Your task to perform on an android device: Go to accessibility settings Image 0: 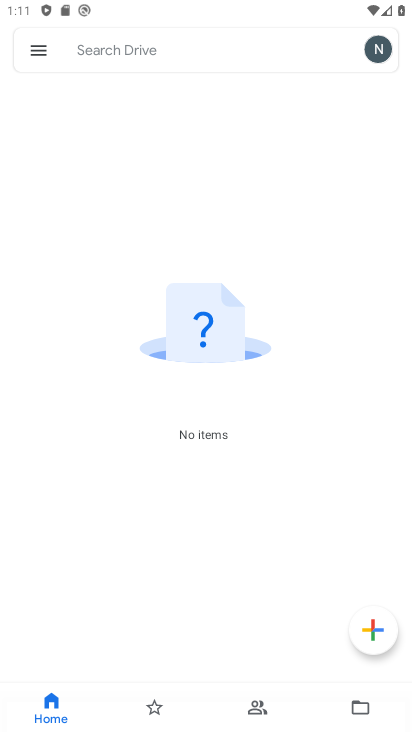
Step 0: press home button
Your task to perform on an android device: Go to accessibility settings Image 1: 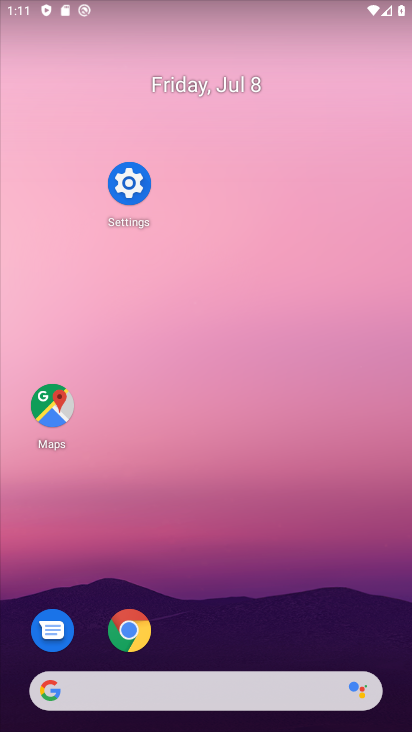
Step 1: click (131, 193)
Your task to perform on an android device: Go to accessibility settings Image 2: 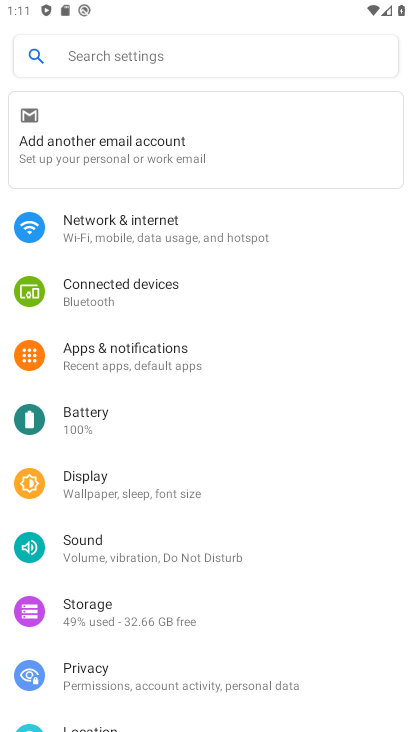
Step 2: drag from (275, 622) to (261, 174)
Your task to perform on an android device: Go to accessibility settings Image 3: 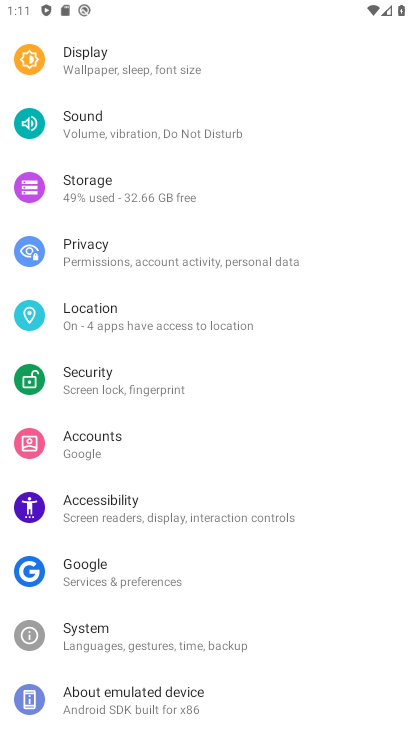
Step 3: click (235, 502)
Your task to perform on an android device: Go to accessibility settings Image 4: 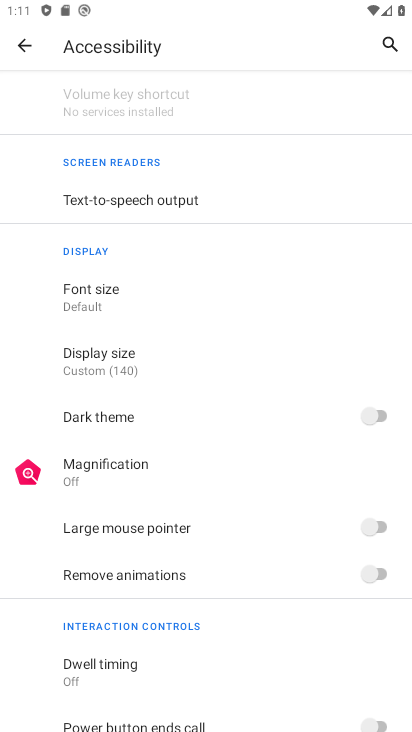
Step 4: task complete